Your task to perform on an android device: Go to eBay Image 0: 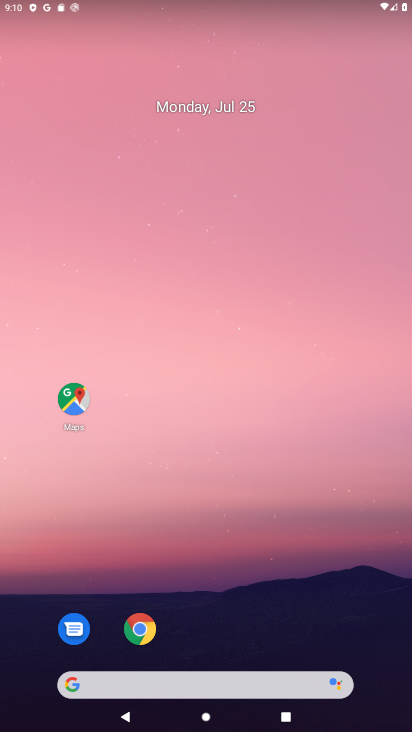
Step 0: click (146, 620)
Your task to perform on an android device: Go to eBay Image 1: 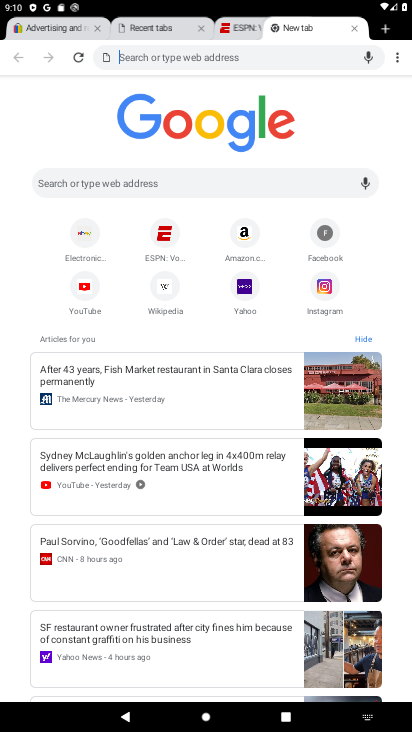
Step 1: click (218, 186)
Your task to perform on an android device: Go to eBay Image 2: 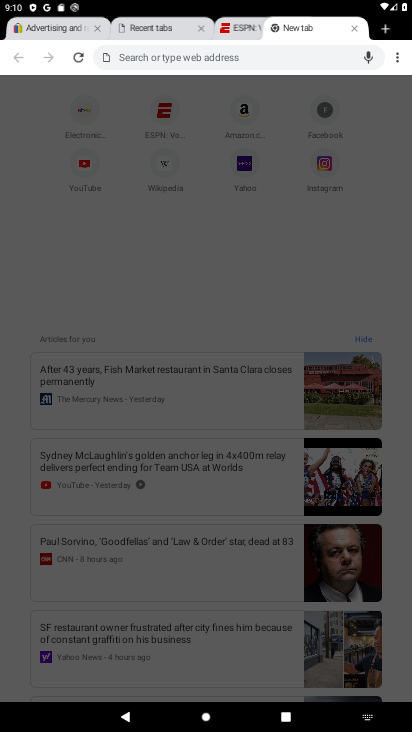
Step 2: click (52, 25)
Your task to perform on an android device: Go to eBay Image 3: 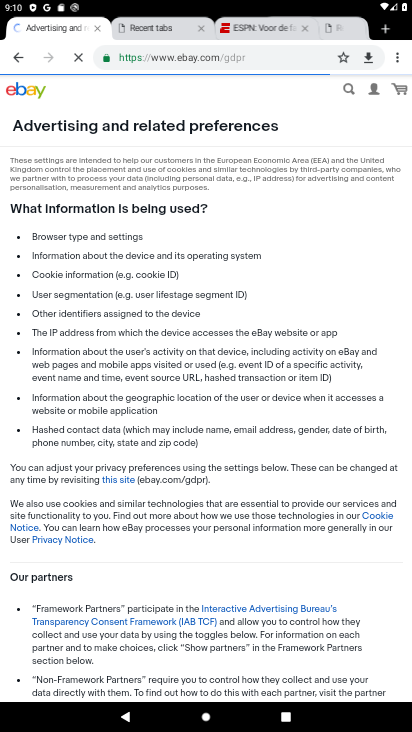
Step 3: task complete